Your task to perform on an android device: Check the news Image 0: 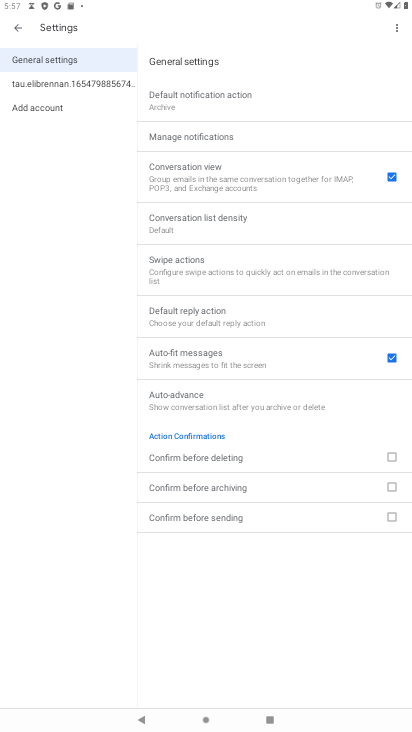
Step 0: press home button
Your task to perform on an android device: Check the news Image 1: 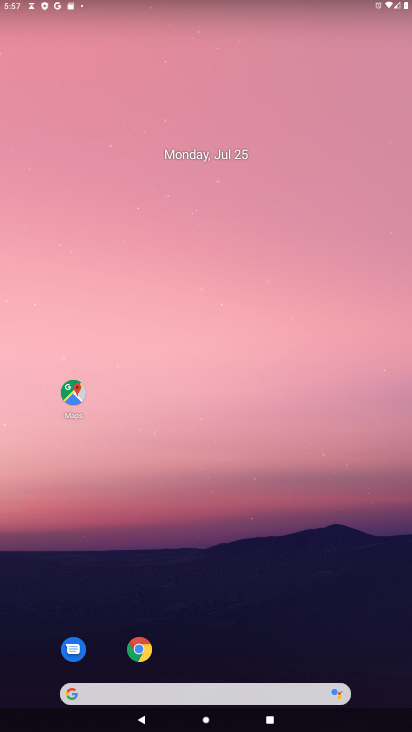
Step 1: drag from (217, 645) to (232, 0)
Your task to perform on an android device: Check the news Image 2: 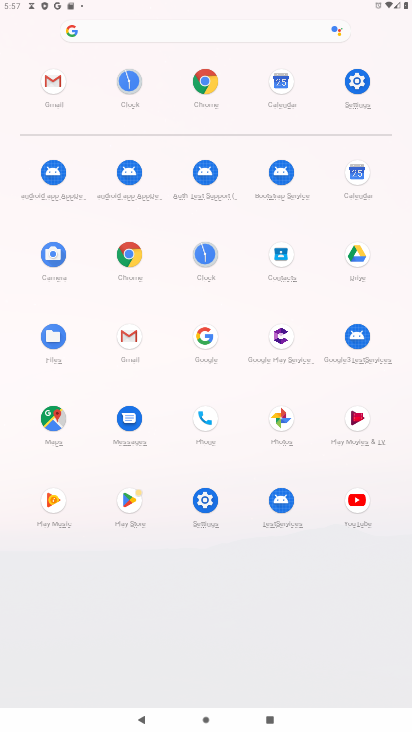
Step 2: click (126, 266)
Your task to perform on an android device: Check the news Image 3: 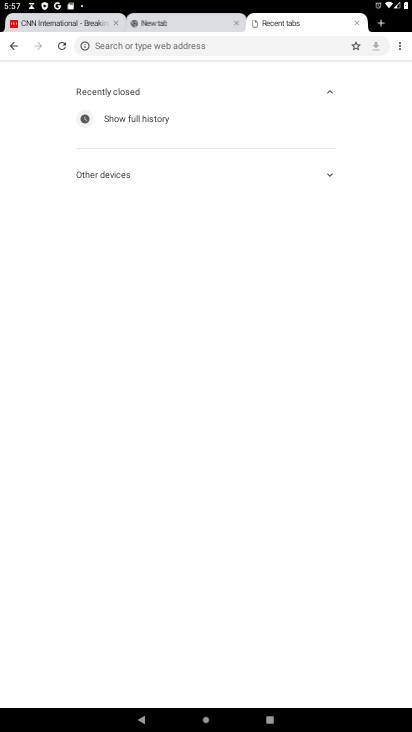
Step 3: click (209, 52)
Your task to perform on an android device: Check the news Image 4: 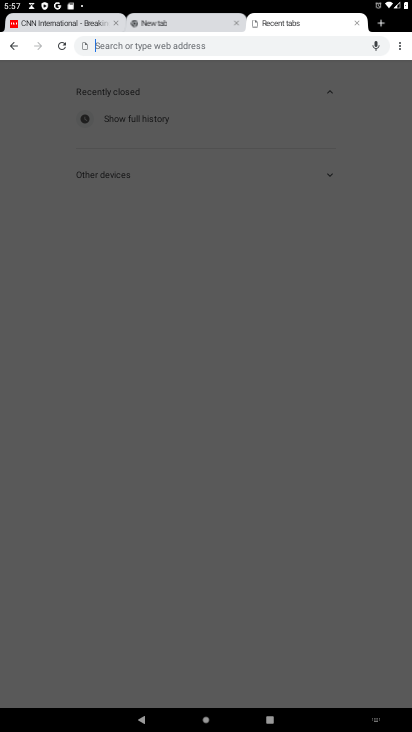
Step 4: type "check the news"
Your task to perform on an android device: Check the news Image 5: 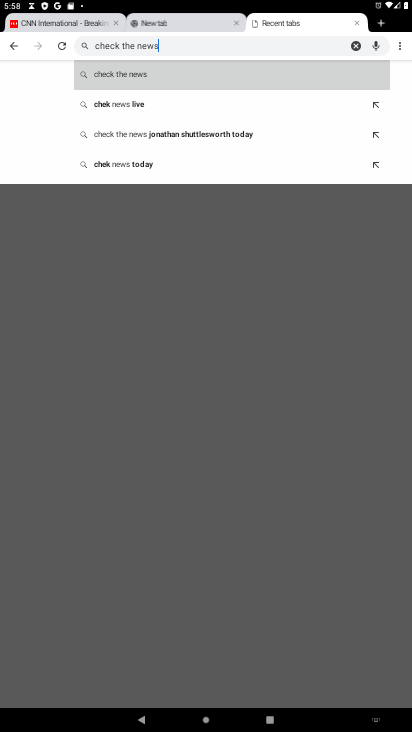
Step 5: click (183, 74)
Your task to perform on an android device: Check the news Image 6: 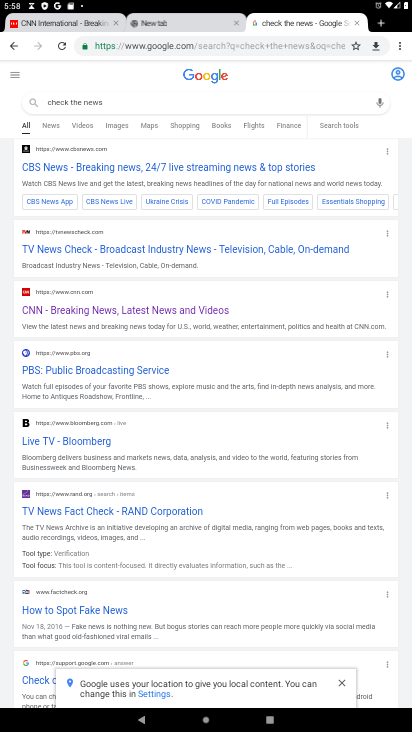
Step 6: task complete